Your task to perform on an android device: move a message to another label in the gmail app Image 0: 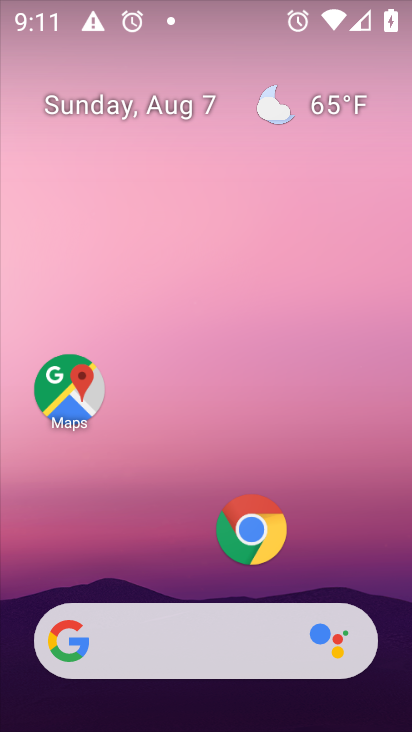
Step 0: drag from (170, 550) to (214, 87)
Your task to perform on an android device: move a message to another label in the gmail app Image 1: 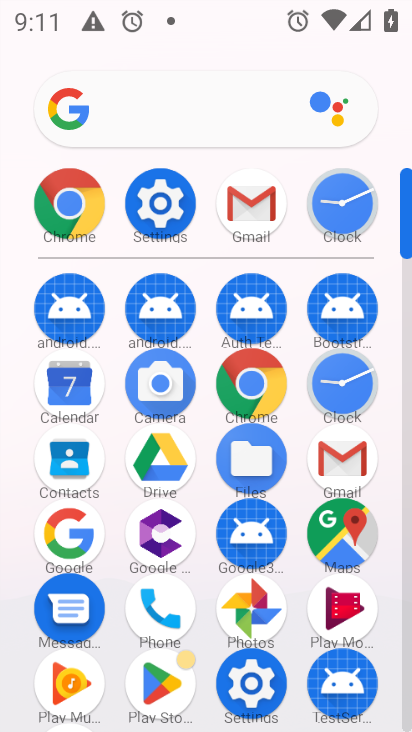
Step 1: click (333, 456)
Your task to perform on an android device: move a message to another label in the gmail app Image 2: 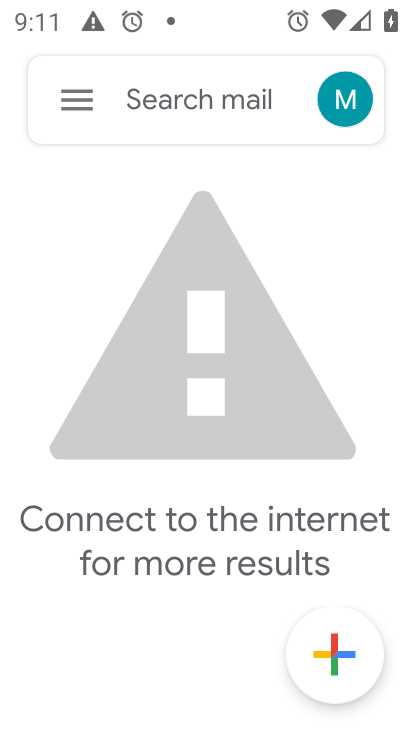
Step 2: click (69, 92)
Your task to perform on an android device: move a message to another label in the gmail app Image 3: 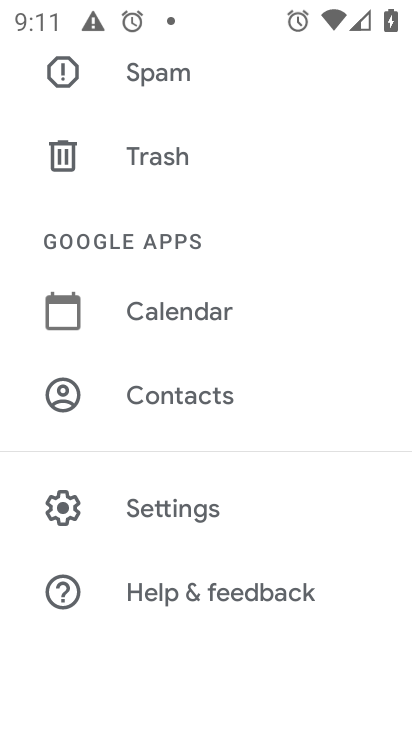
Step 3: drag from (112, 174) to (68, 571)
Your task to perform on an android device: move a message to another label in the gmail app Image 4: 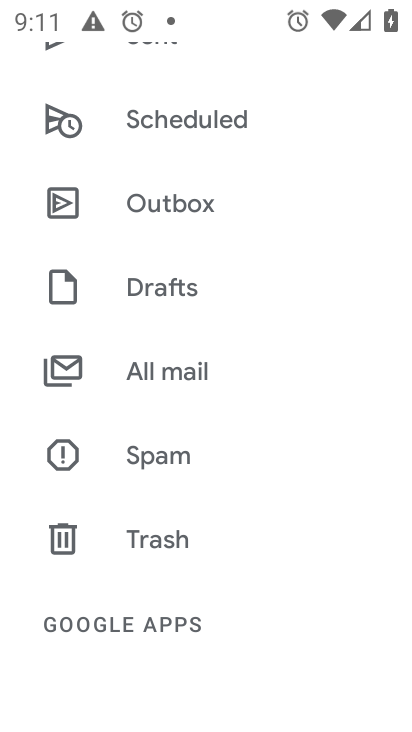
Step 4: drag from (147, 190) to (126, 562)
Your task to perform on an android device: move a message to another label in the gmail app Image 5: 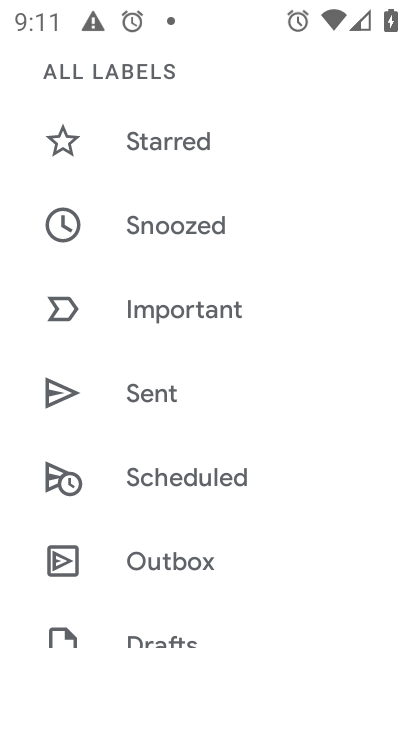
Step 5: drag from (196, 268) to (186, 621)
Your task to perform on an android device: move a message to another label in the gmail app Image 6: 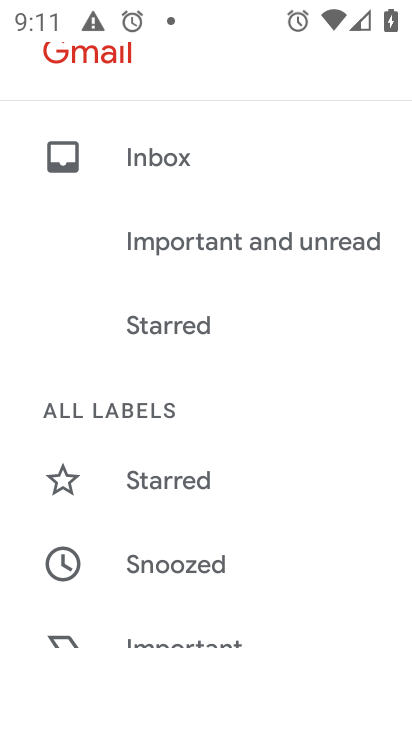
Step 6: drag from (201, 268) to (188, 574)
Your task to perform on an android device: move a message to another label in the gmail app Image 7: 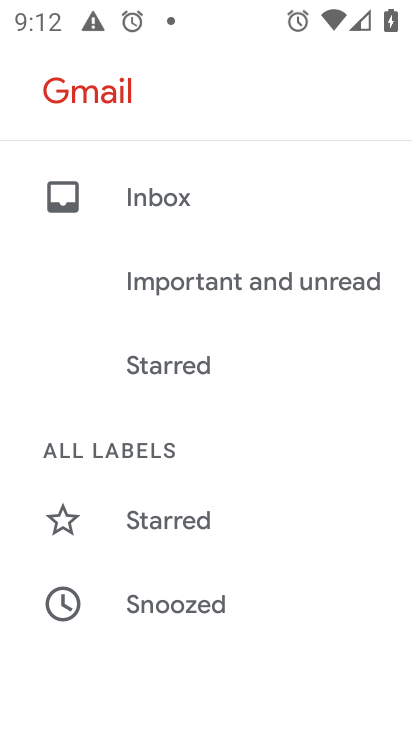
Step 7: click (166, 197)
Your task to perform on an android device: move a message to another label in the gmail app Image 8: 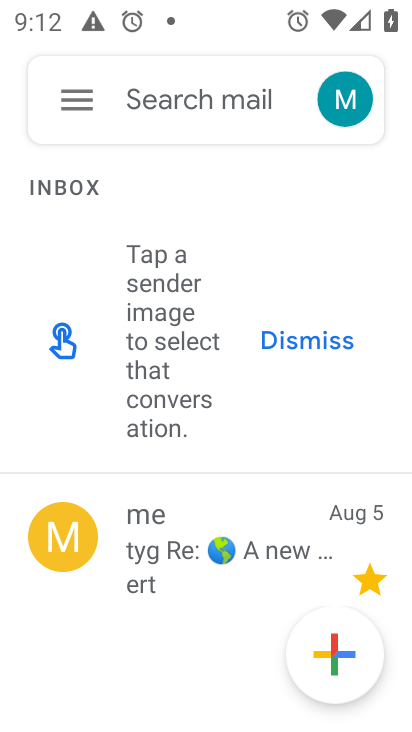
Step 8: click (53, 546)
Your task to perform on an android device: move a message to another label in the gmail app Image 9: 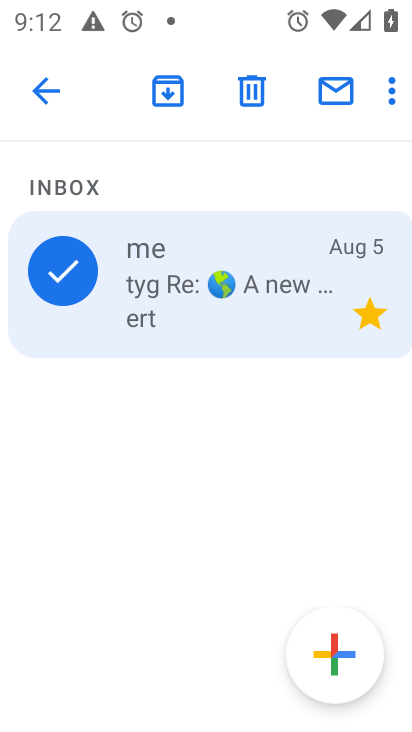
Step 9: click (385, 95)
Your task to perform on an android device: move a message to another label in the gmail app Image 10: 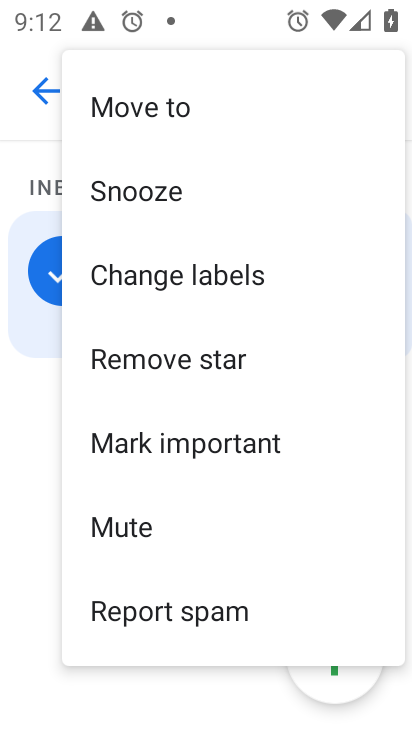
Step 10: click (202, 278)
Your task to perform on an android device: move a message to another label in the gmail app Image 11: 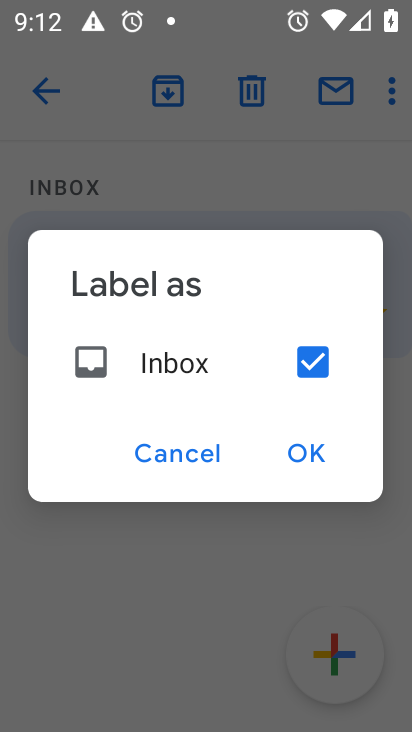
Step 11: click (296, 369)
Your task to perform on an android device: move a message to another label in the gmail app Image 12: 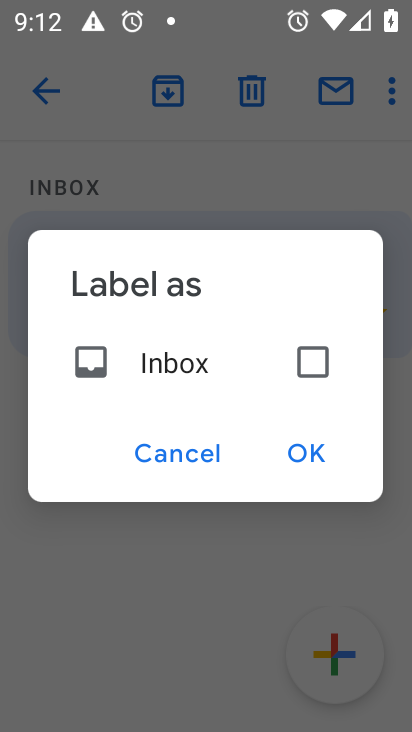
Step 12: click (309, 448)
Your task to perform on an android device: move a message to another label in the gmail app Image 13: 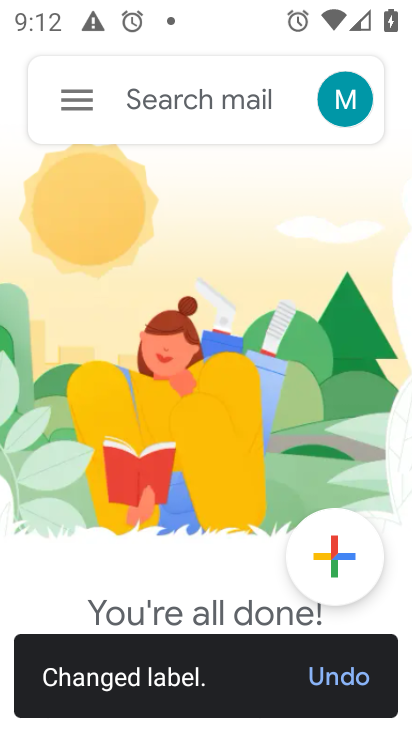
Step 13: task complete